Your task to perform on an android device: Go to wifi settings Image 0: 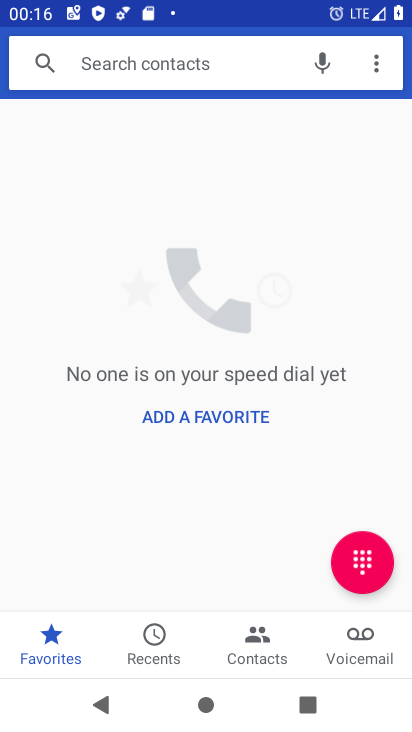
Step 0: press home button
Your task to perform on an android device: Go to wifi settings Image 1: 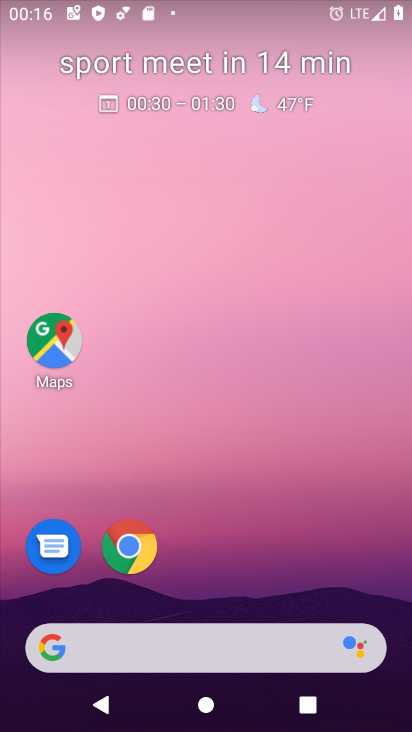
Step 1: drag from (281, 586) to (272, 0)
Your task to perform on an android device: Go to wifi settings Image 2: 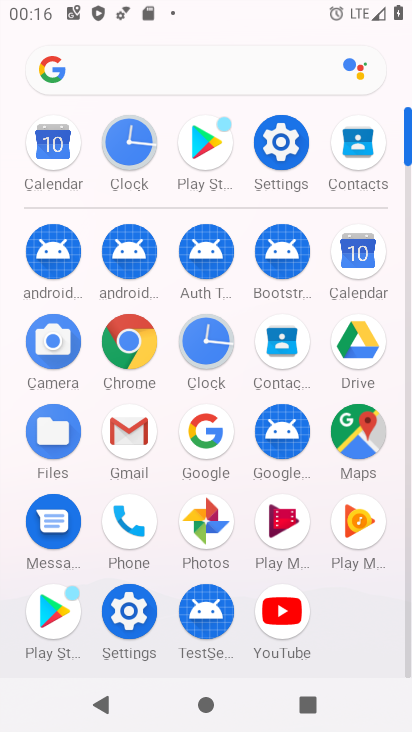
Step 2: click (281, 152)
Your task to perform on an android device: Go to wifi settings Image 3: 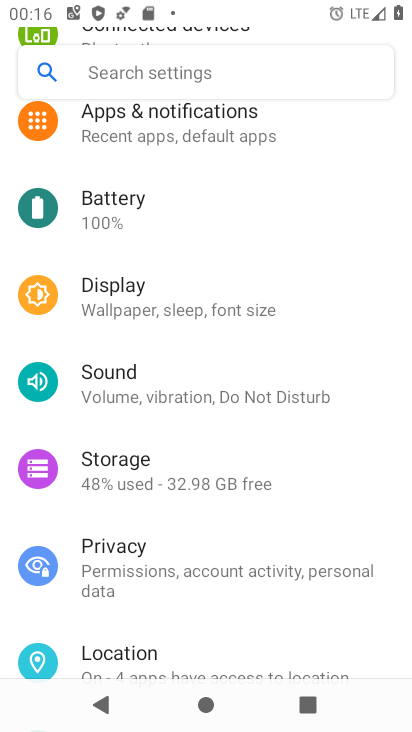
Step 3: drag from (390, 208) to (401, 563)
Your task to perform on an android device: Go to wifi settings Image 4: 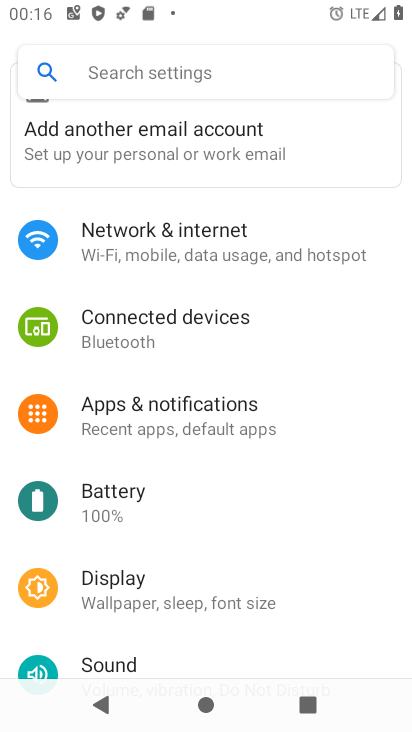
Step 4: click (158, 252)
Your task to perform on an android device: Go to wifi settings Image 5: 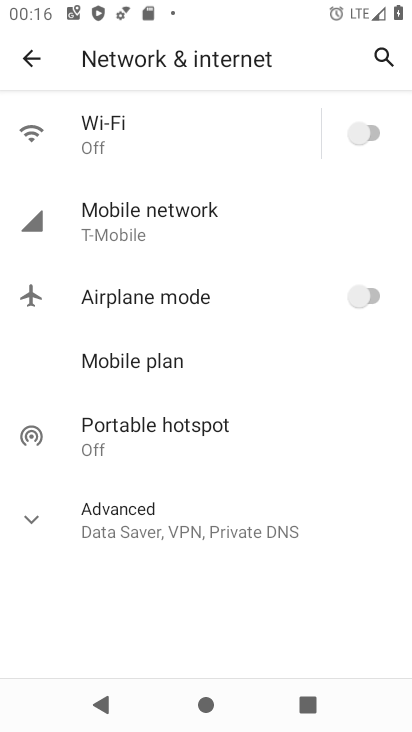
Step 5: click (86, 135)
Your task to perform on an android device: Go to wifi settings Image 6: 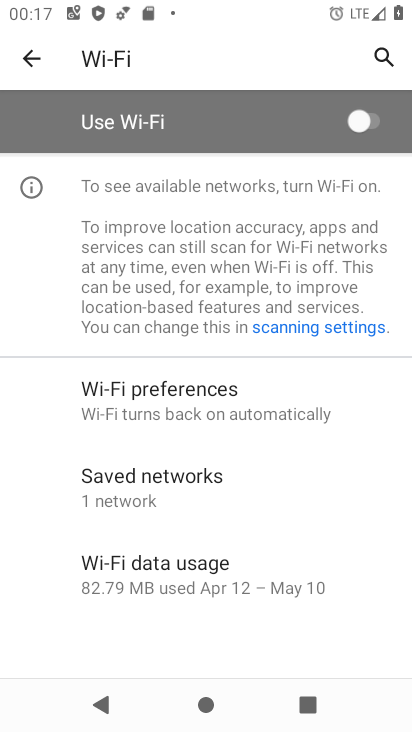
Step 6: task complete